Your task to perform on an android device: Empty the shopping cart on ebay.com. Search for usb-b on ebay.com, select the first entry, and add it to the cart. Image 0: 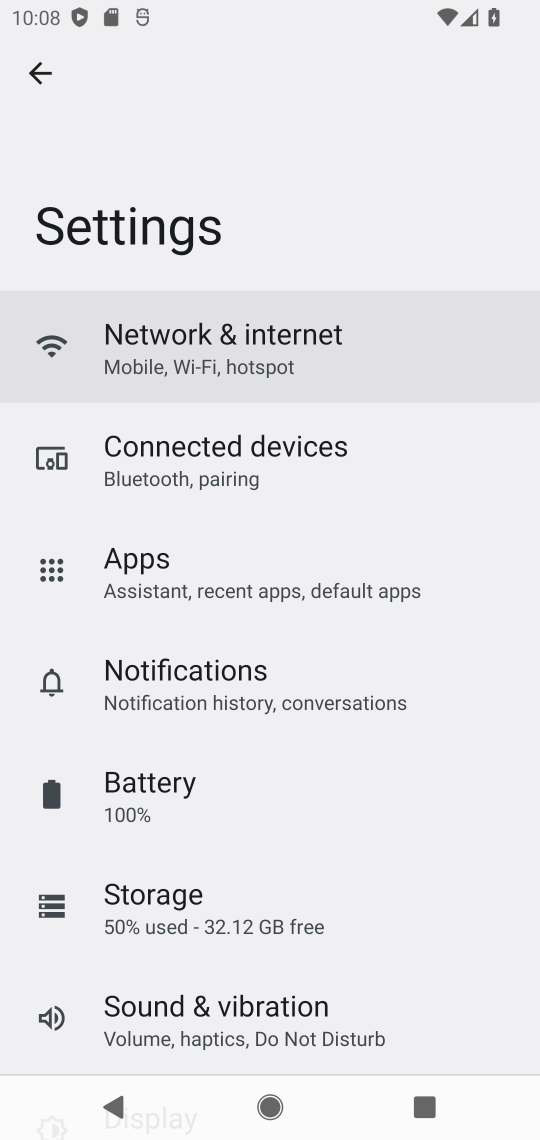
Step 0: press home button
Your task to perform on an android device: Empty the shopping cart on ebay.com. Search for usb-b on ebay.com, select the first entry, and add it to the cart. Image 1: 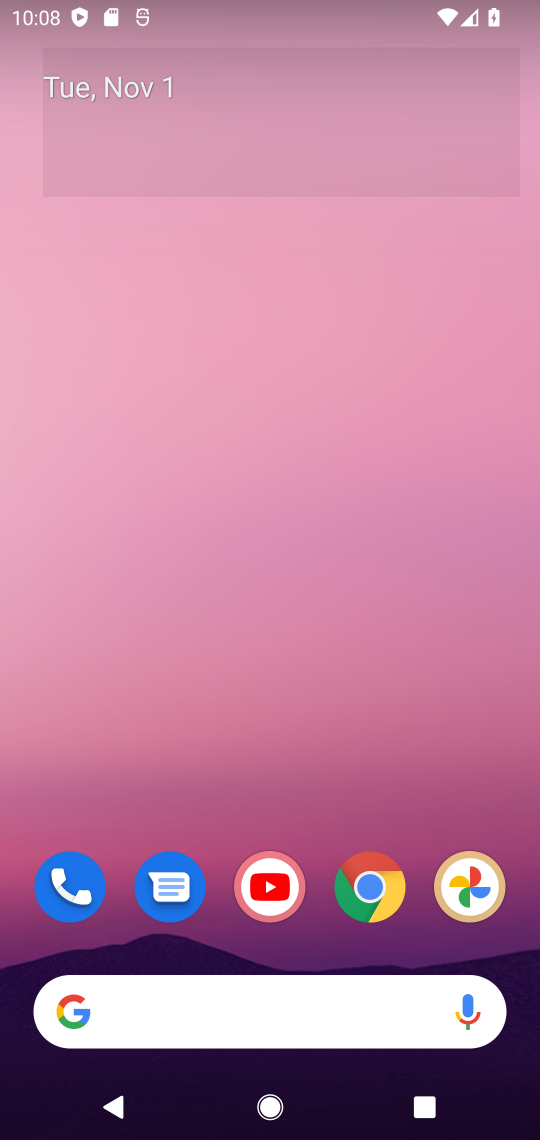
Step 1: click (373, 876)
Your task to perform on an android device: Empty the shopping cart on ebay.com. Search for usb-b on ebay.com, select the first entry, and add it to the cart. Image 2: 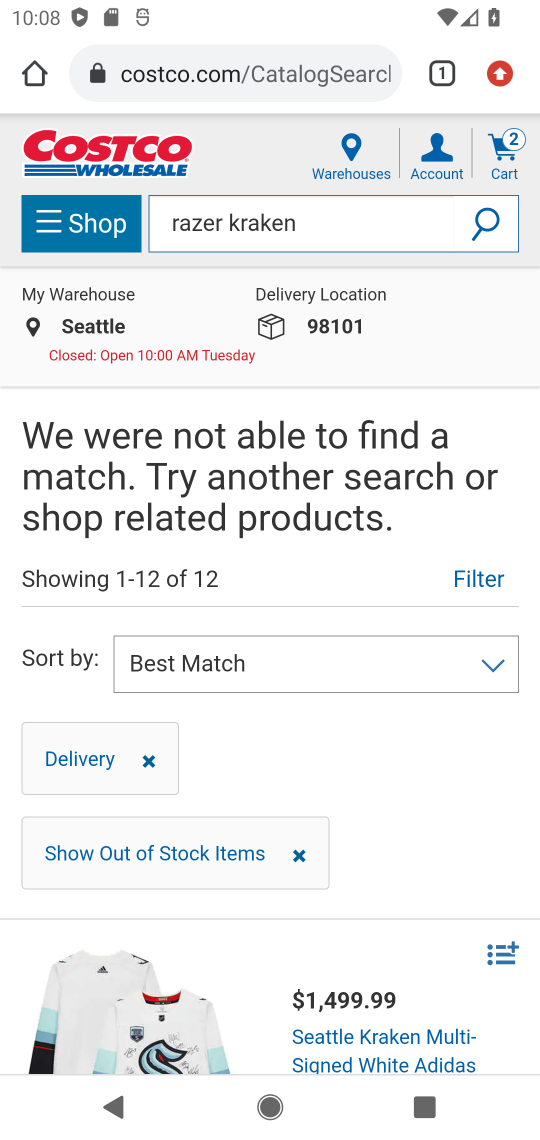
Step 2: click (209, 67)
Your task to perform on an android device: Empty the shopping cart on ebay.com. Search for usb-b on ebay.com, select the first entry, and add it to the cart. Image 3: 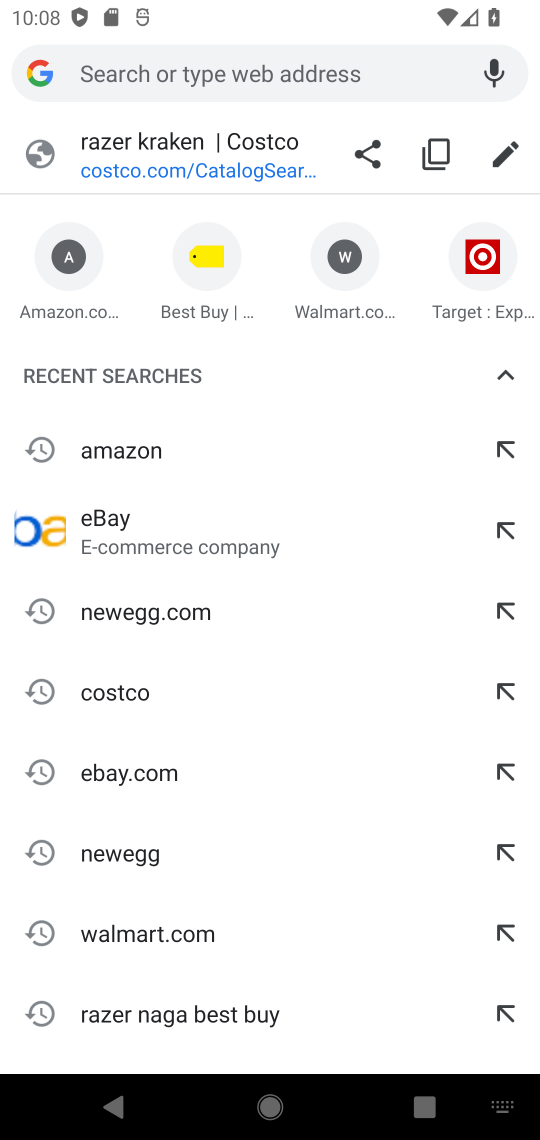
Step 3: click (134, 768)
Your task to perform on an android device: Empty the shopping cart on ebay.com. Search for usb-b on ebay.com, select the first entry, and add it to the cart. Image 4: 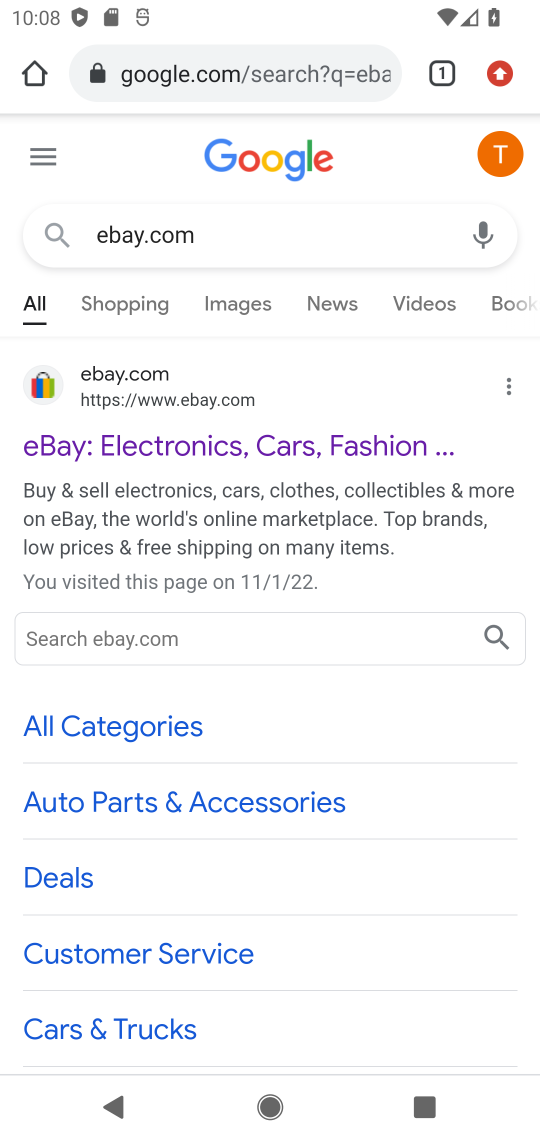
Step 4: drag from (243, 915) to (224, 441)
Your task to perform on an android device: Empty the shopping cart on ebay.com. Search for usb-b on ebay.com, select the first entry, and add it to the cart. Image 5: 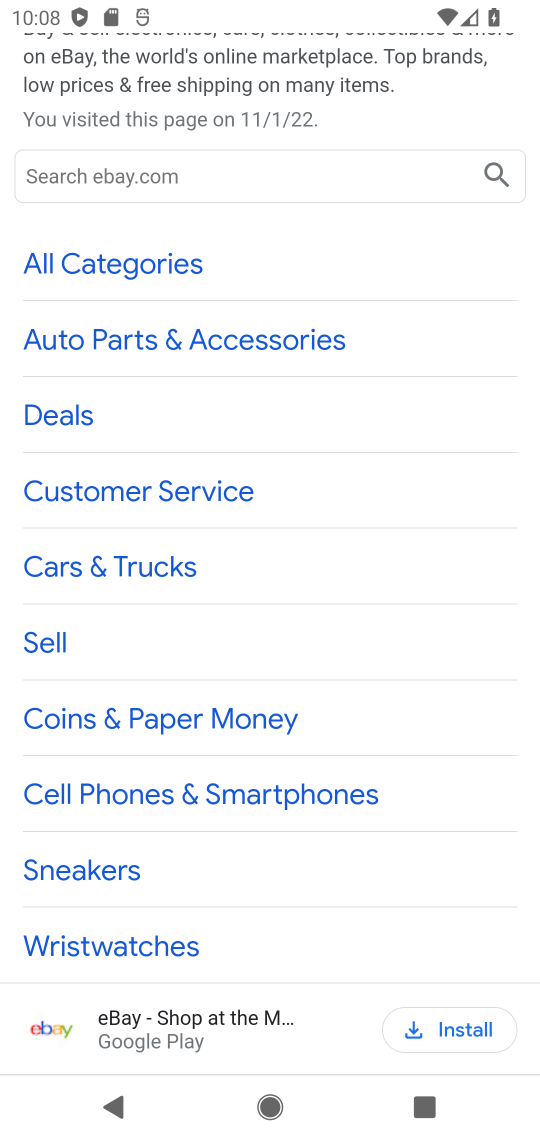
Step 5: drag from (206, 865) to (203, 557)
Your task to perform on an android device: Empty the shopping cart on ebay.com. Search for usb-b on ebay.com, select the first entry, and add it to the cart. Image 6: 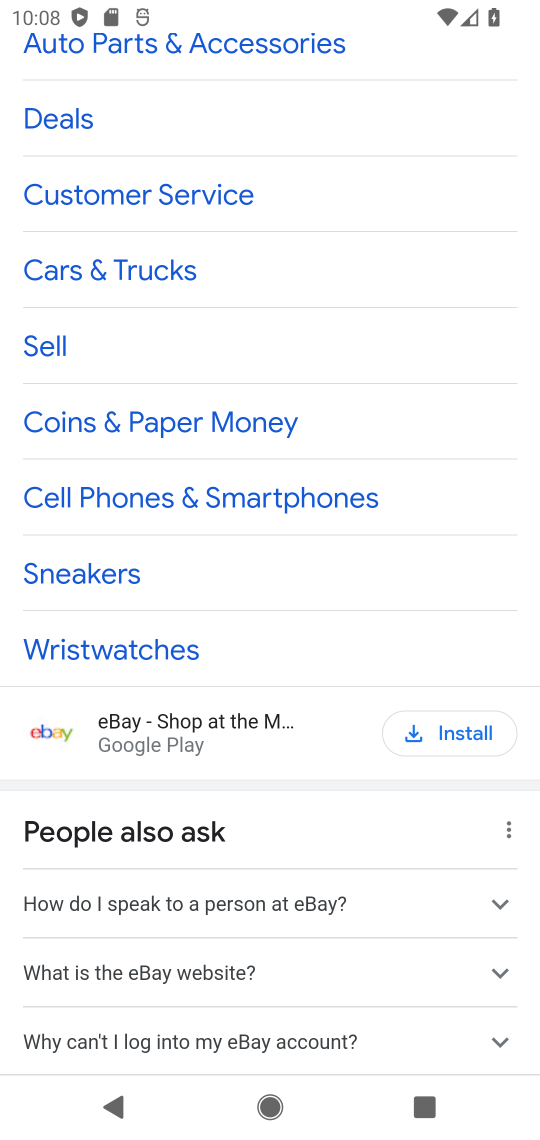
Step 6: click (51, 727)
Your task to perform on an android device: Empty the shopping cart on ebay.com. Search for usb-b on ebay.com, select the first entry, and add it to the cart. Image 7: 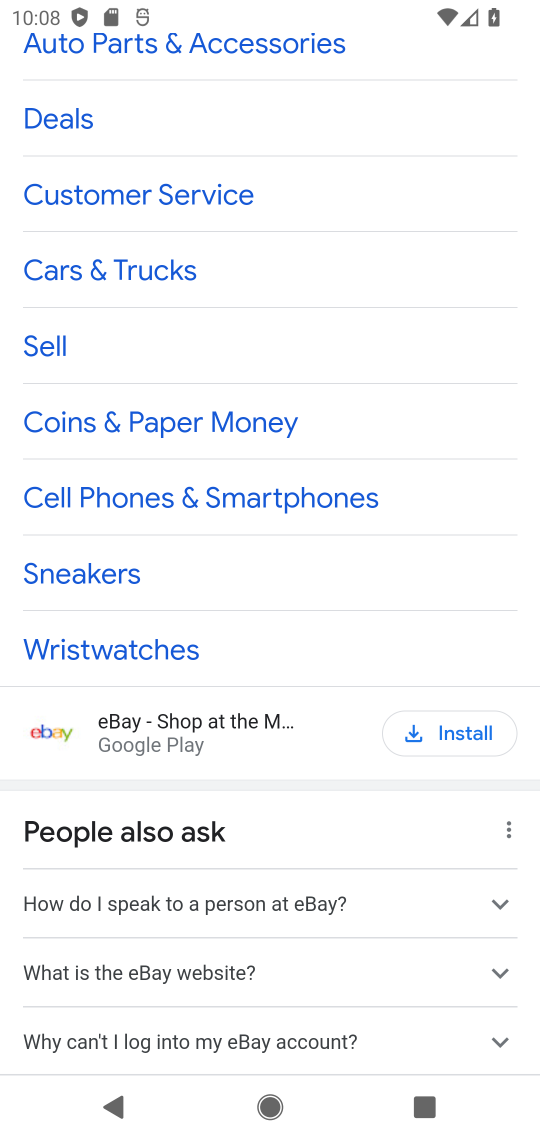
Step 7: drag from (222, 341) to (300, 905)
Your task to perform on an android device: Empty the shopping cart on ebay.com. Search for usb-b on ebay.com, select the first entry, and add it to the cart. Image 8: 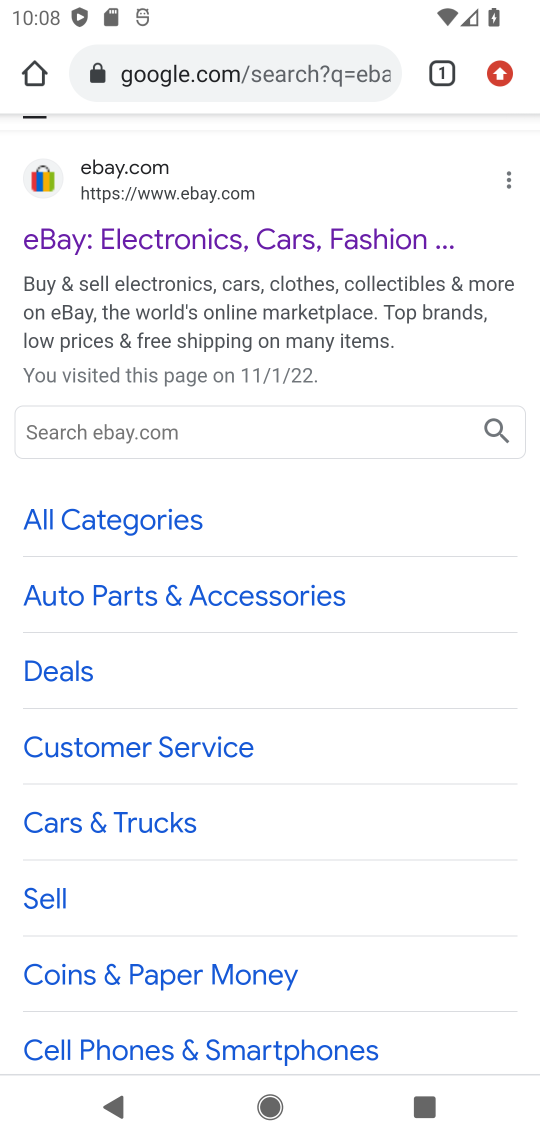
Step 8: click (132, 179)
Your task to perform on an android device: Empty the shopping cart on ebay.com. Search for usb-b on ebay.com, select the first entry, and add it to the cart. Image 9: 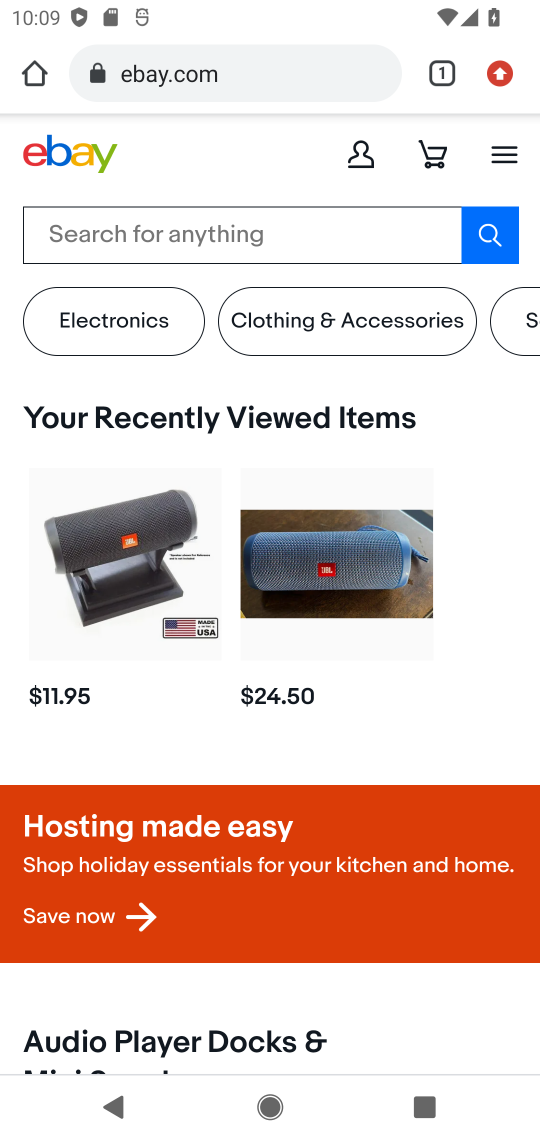
Step 9: click (230, 230)
Your task to perform on an android device: Empty the shopping cart on ebay.com. Search for usb-b on ebay.com, select the first entry, and add it to the cart. Image 10: 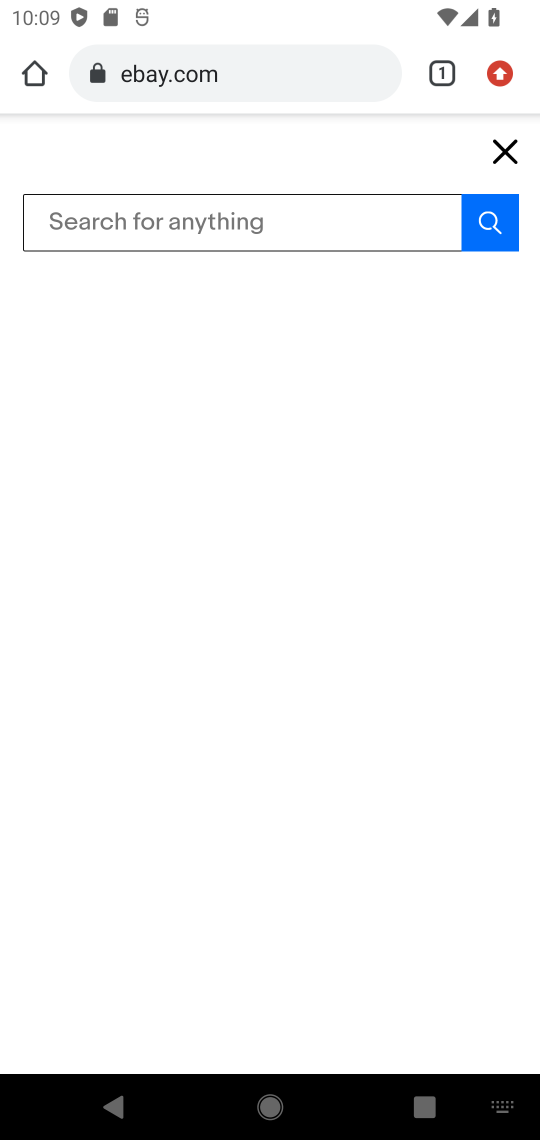
Step 10: click (514, 143)
Your task to perform on an android device: Empty the shopping cart on ebay.com. Search for usb-b on ebay.com, select the first entry, and add it to the cart. Image 11: 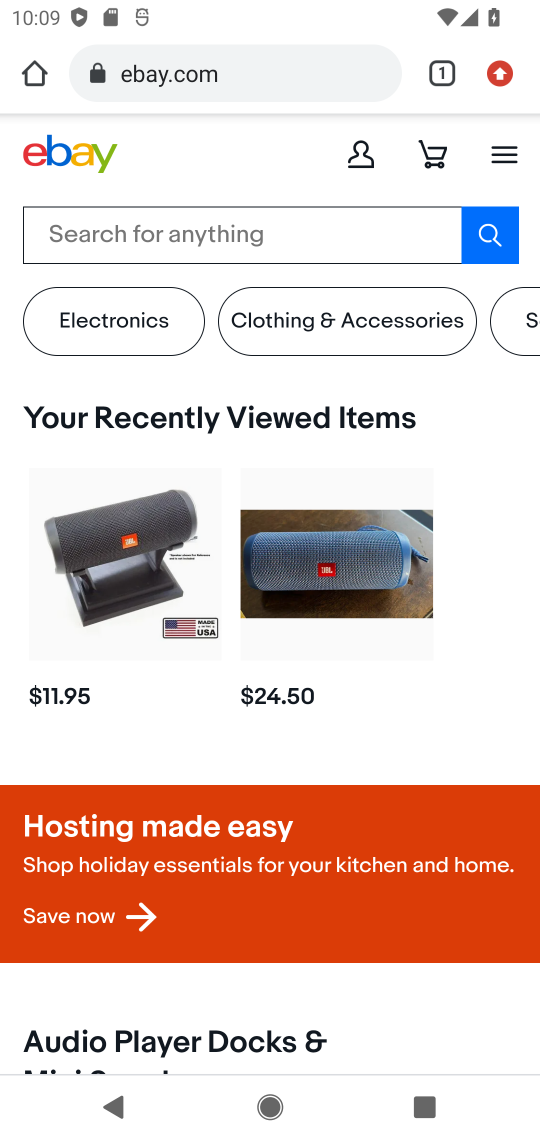
Step 11: click (431, 155)
Your task to perform on an android device: Empty the shopping cart on ebay.com. Search for usb-b on ebay.com, select the first entry, and add it to the cart. Image 12: 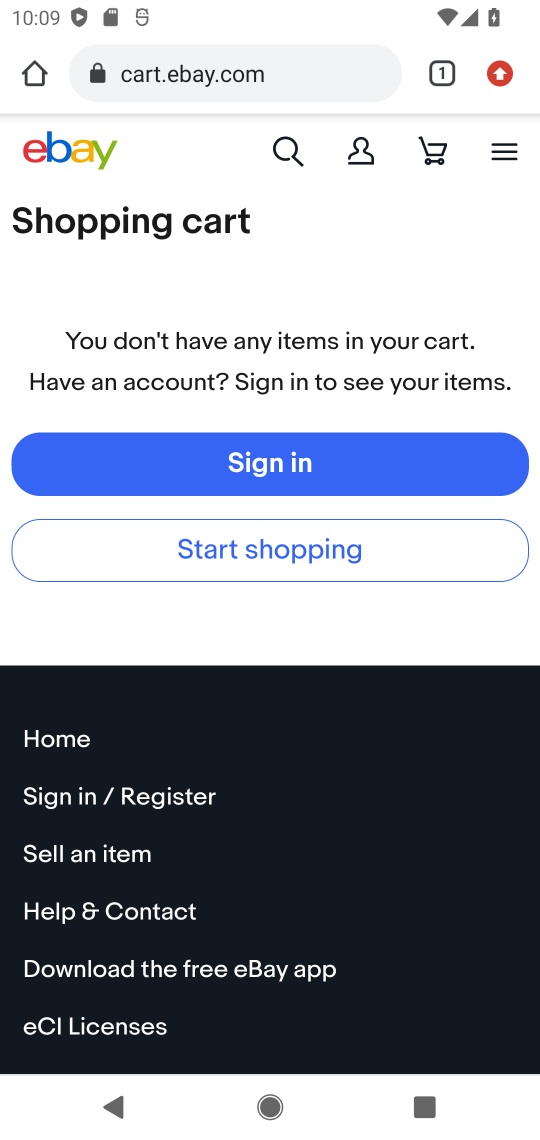
Step 12: click (290, 152)
Your task to perform on an android device: Empty the shopping cart on ebay.com. Search for usb-b on ebay.com, select the first entry, and add it to the cart. Image 13: 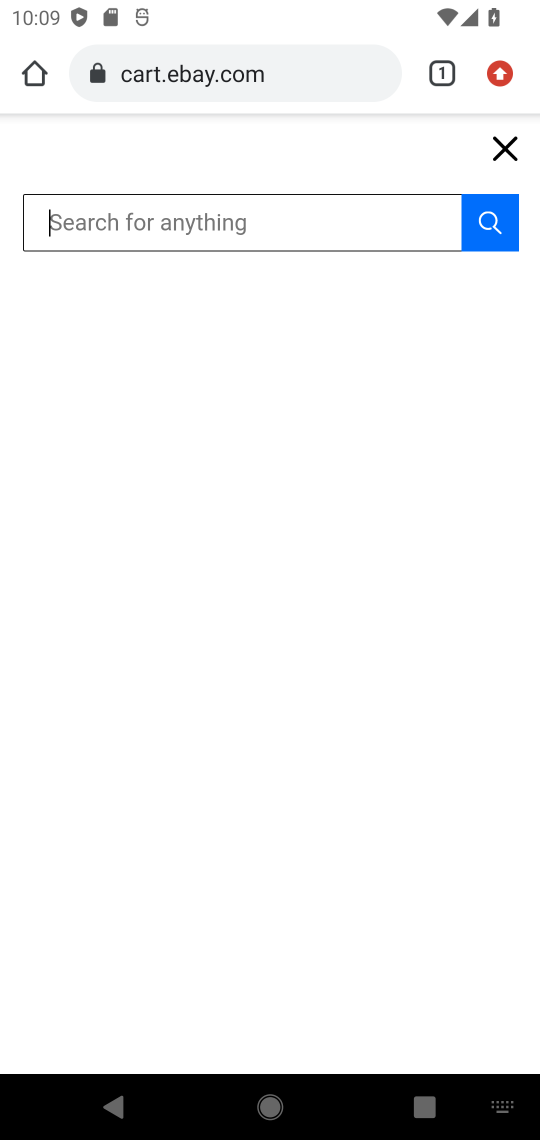
Step 13: type "usb-b"
Your task to perform on an android device: Empty the shopping cart on ebay.com. Search for usb-b on ebay.com, select the first entry, and add it to the cart. Image 14: 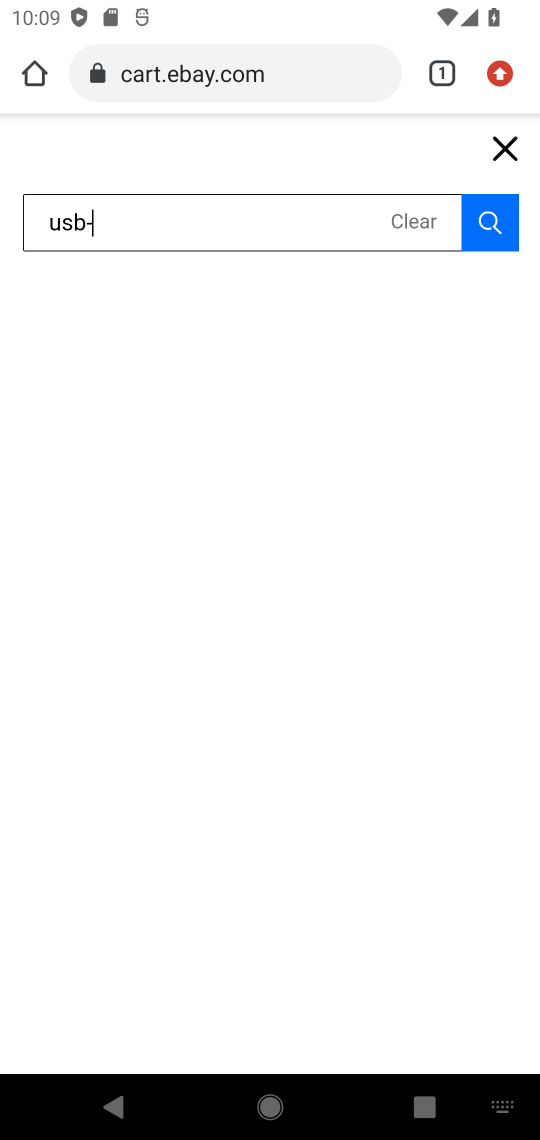
Step 14: press enter
Your task to perform on an android device: Empty the shopping cart on ebay.com. Search for usb-b on ebay.com, select the first entry, and add it to the cart. Image 15: 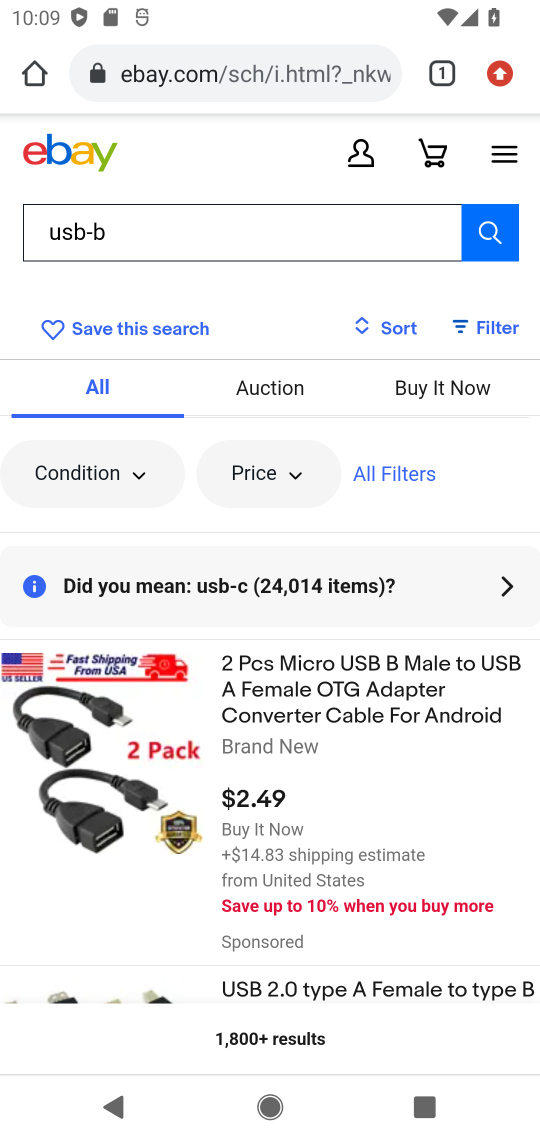
Step 15: click (107, 785)
Your task to perform on an android device: Empty the shopping cart on ebay.com. Search for usb-b on ebay.com, select the first entry, and add it to the cart. Image 16: 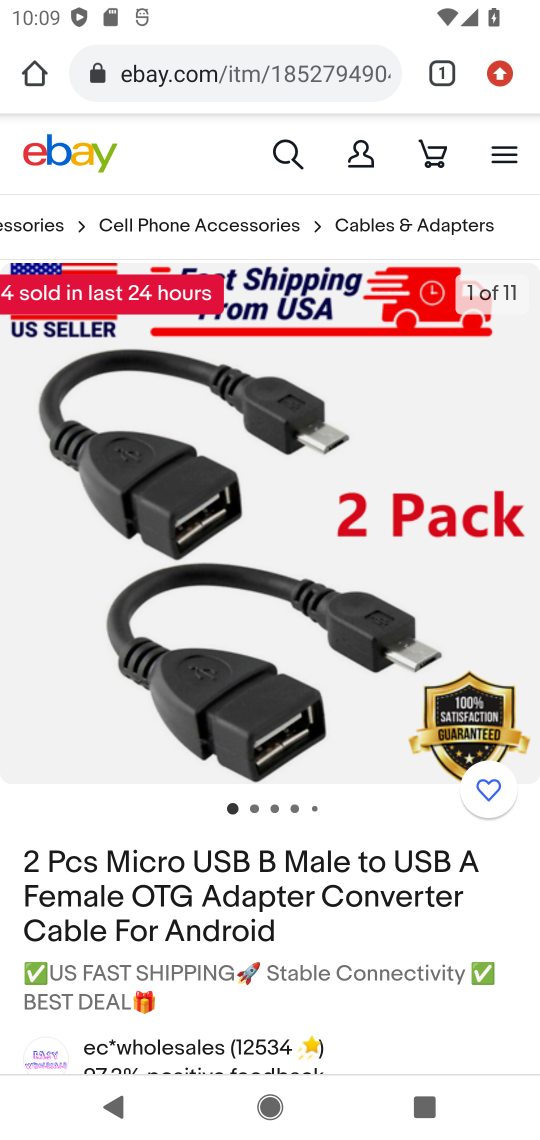
Step 16: drag from (259, 840) to (307, 434)
Your task to perform on an android device: Empty the shopping cart on ebay.com. Search for usb-b on ebay.com, select the first entry, and add it to the cart. Image 17: 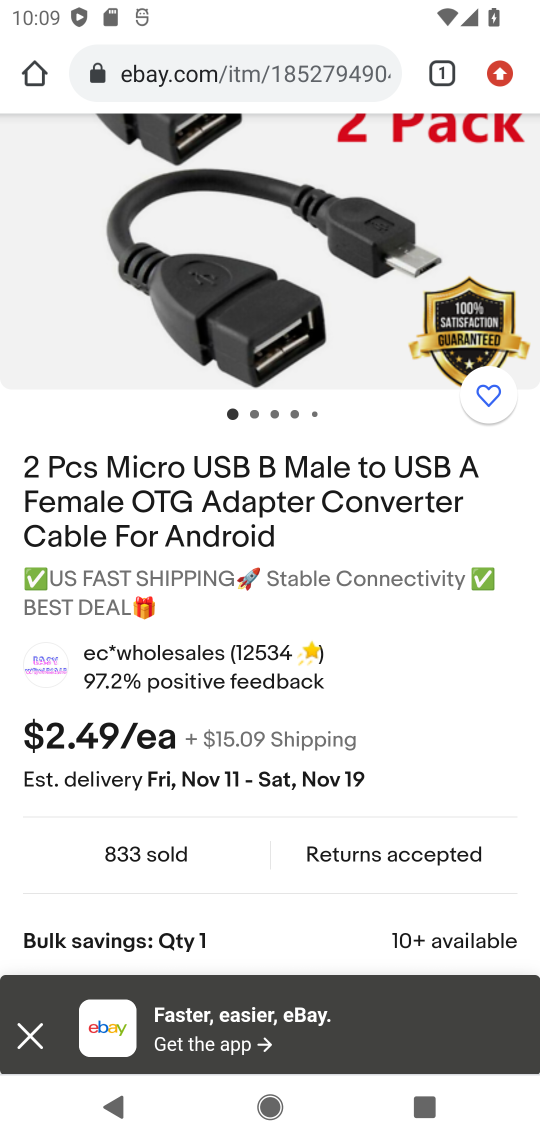
Step 17: drag from (391, 797) to (396, 389)
Your task to perform on an android device: Empty the shopping cart on ebay.com. Search for usb-b on ebay.com, select the first entry, and add it to the cart. Image 18: 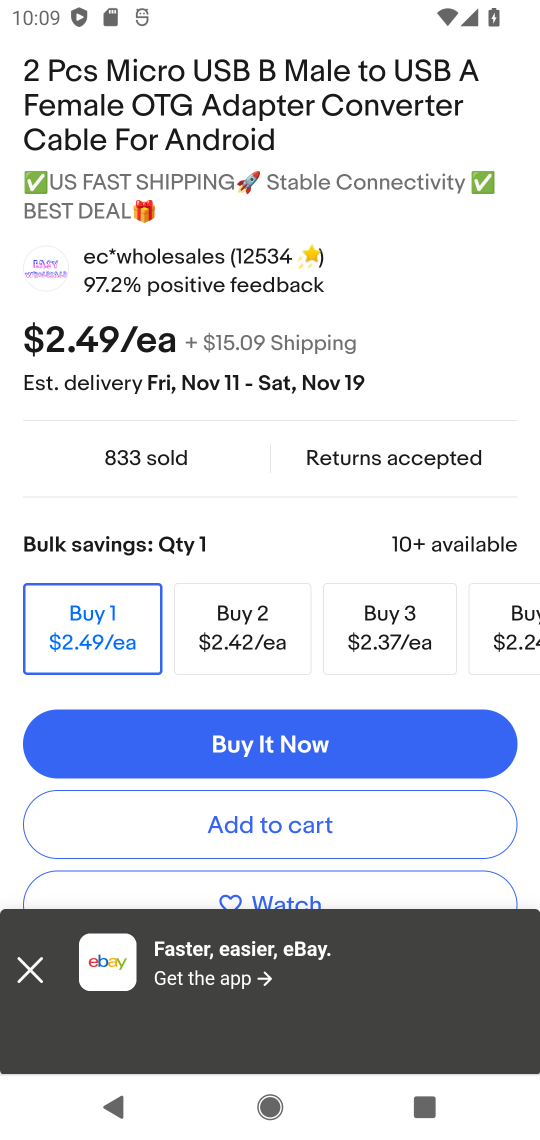
Step 18: click (337, 821)
Your task to perform on an android device: Empty the shopping cart on ebay.com. Search for usb-b on ebay.com, select the first entry, and add it to the cart. Image 19: 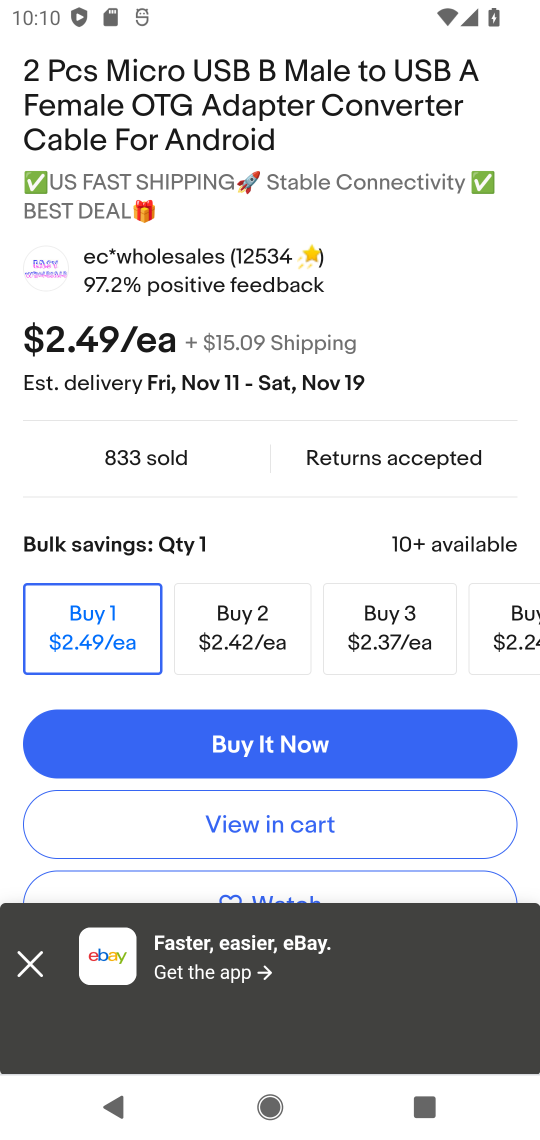
Step 19: click (302, 821)
Your task to perform on an android device: Empty the shopping cart on ebay.com. Search for usb-b on ebay.com, select the first entry, and add it to the cart. Image 20: 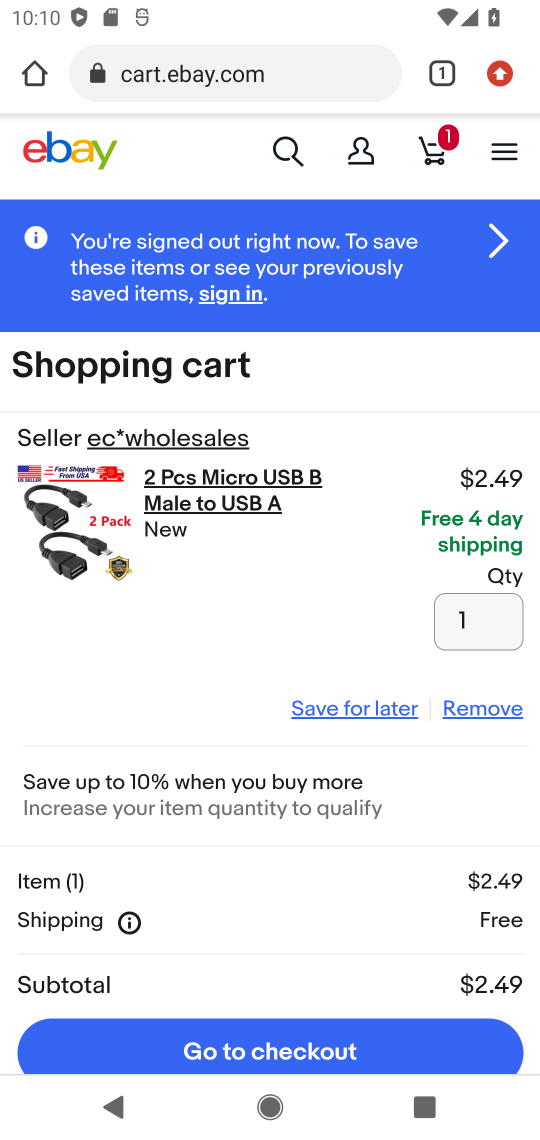
Step 20: click (384, 1035)
Your task to perform on an android device: Empty the shopping cart on ebay.com. Search for usb-b on ebay.com, select the first entry, and add it to the cart. Image 21: 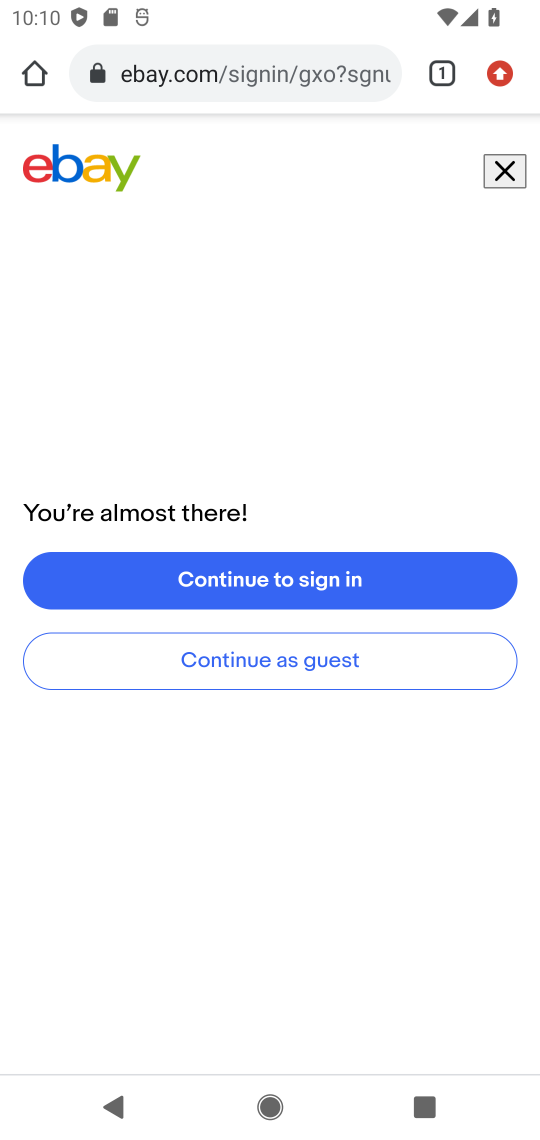
Step 21: task complete